Your task to perform on an android device: turn off priority inbox in the gmail app Image 0: 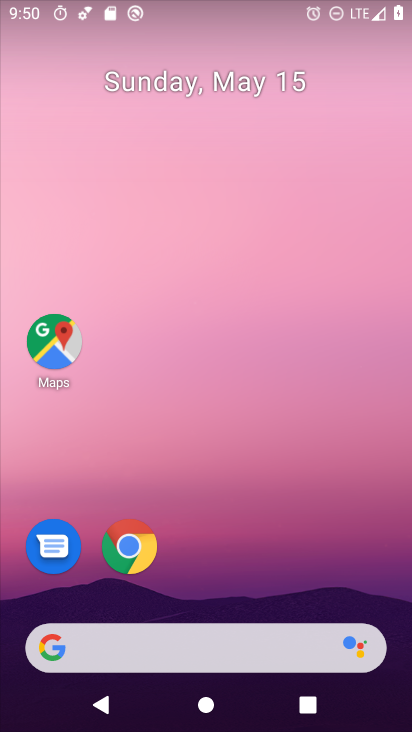
Step 0: drag from (291, 556) to (252, 84)
Your task to perform on an android device: turn off priority inbox in the gmail app Image 1: 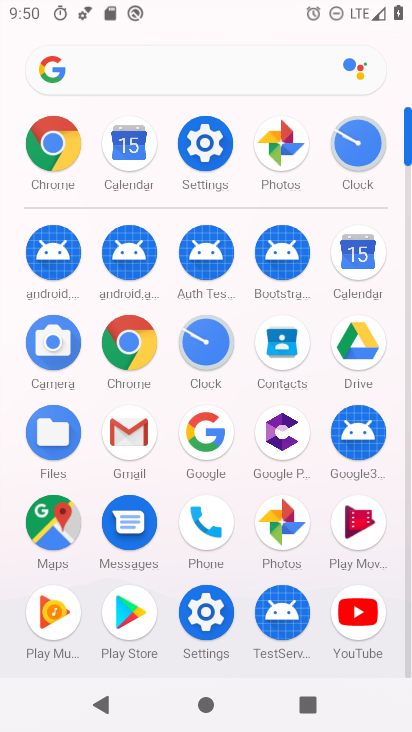
Step 1: click (111, 435)
Your task to perform on an android device: turn off priority inbox in the gmail app Image 2: 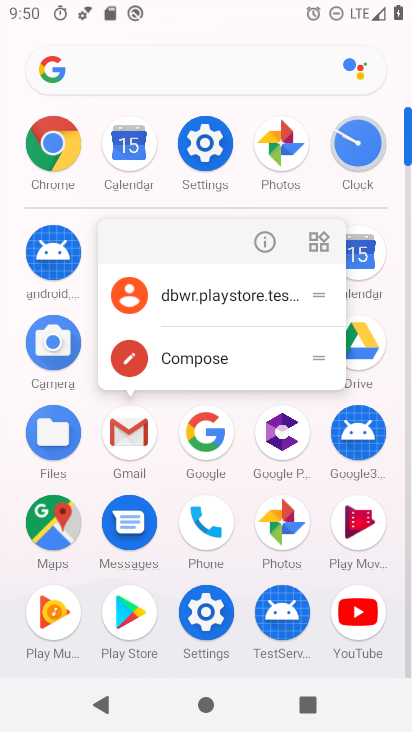
Step 2: click (132, 421)
Your task to perform on an android device: turn off priority inbox in the gmail app Image 3: 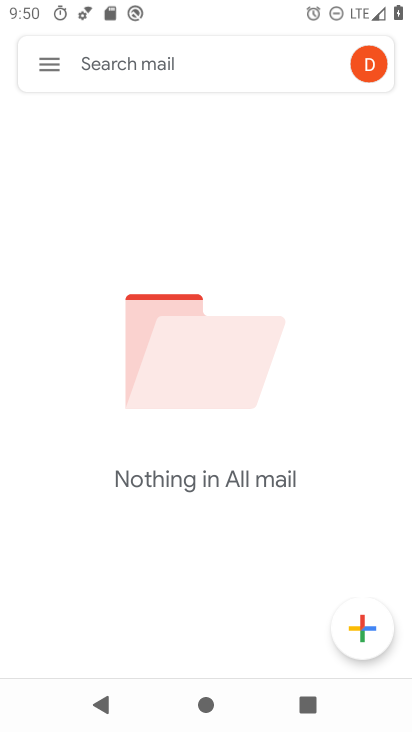
Step 3: click (53, 63)
Your task to perform on an android device: turn off priority inbox in the gmail app Image 4: 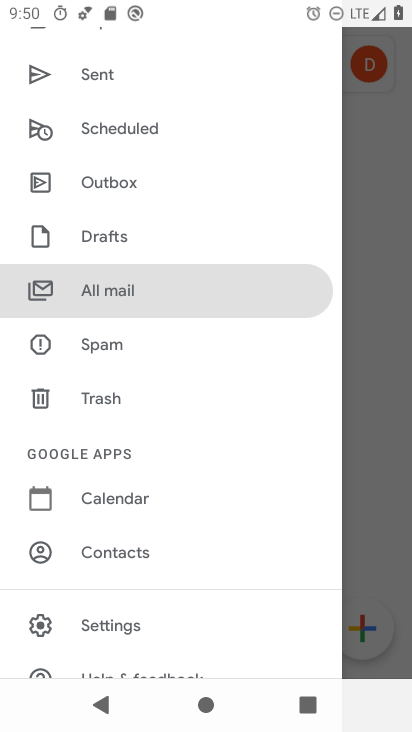
Step 4: click (133, 615)
Your task to perform on an android device: turn off priority inbox in the gmail app Image 5: 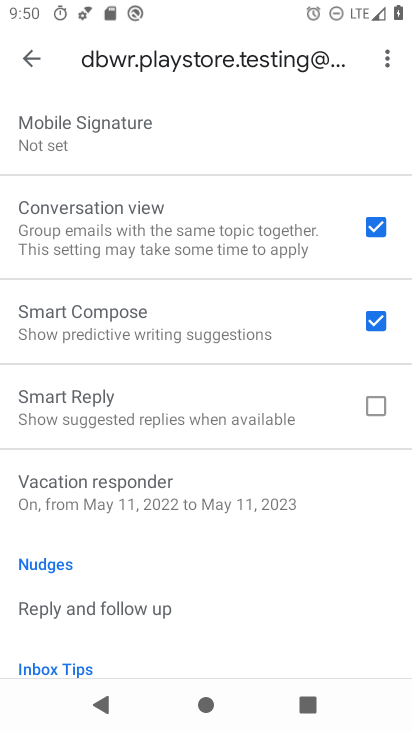
Step 5: drag from (210, 204) to (180, 699)
Your task to perform on an android device: turn off priority inbox in the gmail app Image 6: 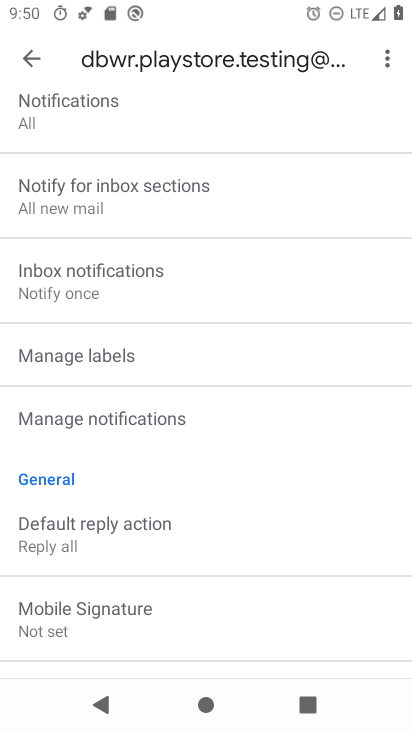
Step 6: drag from (232, 233) to (271, 596)
Your task to perform on an android device: turn off priority inbox in the gmail app Image 7: 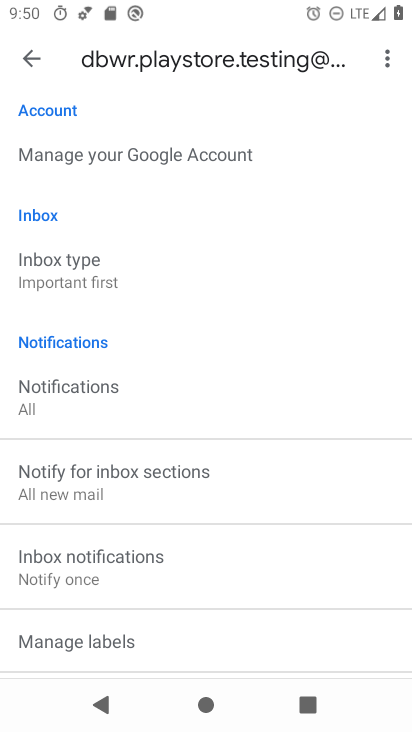
Step 7: click (91, 253)
Your task to perform on an android device: turn off priority inbox in the gmail app Image 8: 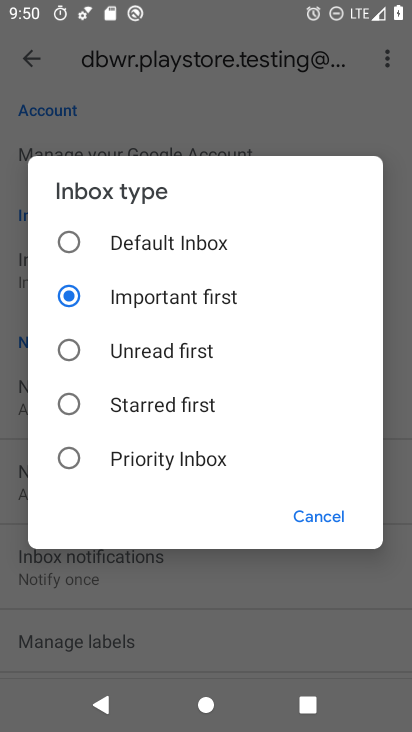
Step 8: click (82, 242)
Your task to perform on an android device: turn off priority inbox in the gmail app Image 9: 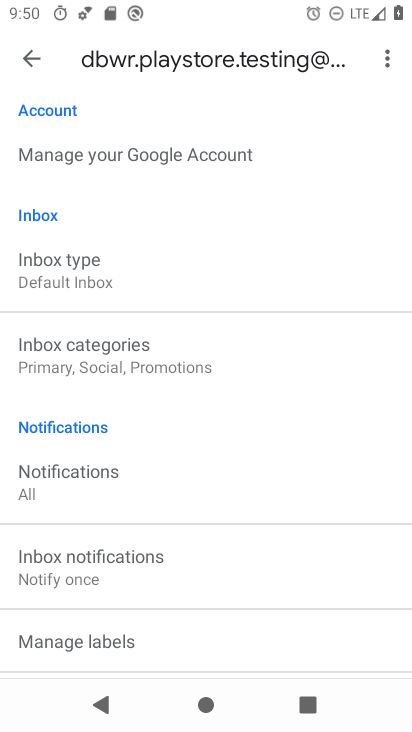
Step 9: task complete